Your task to perform on an android device: Turn on the flashlight Image 0: 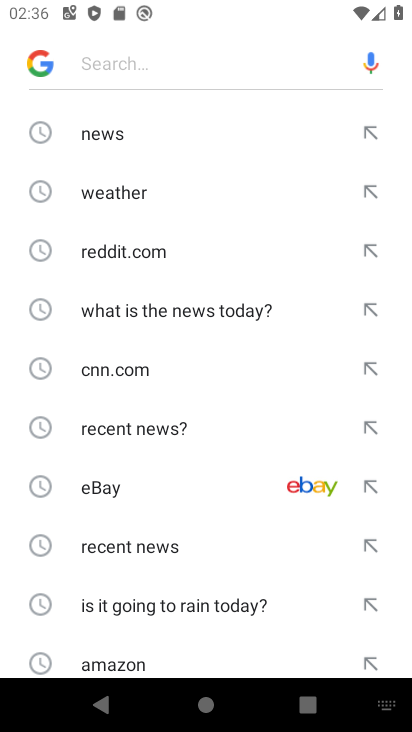
Step 0: drag from (173, 526) to (234, 186)
Your task to perform on an android device: Turn on the flashlight Image 1: 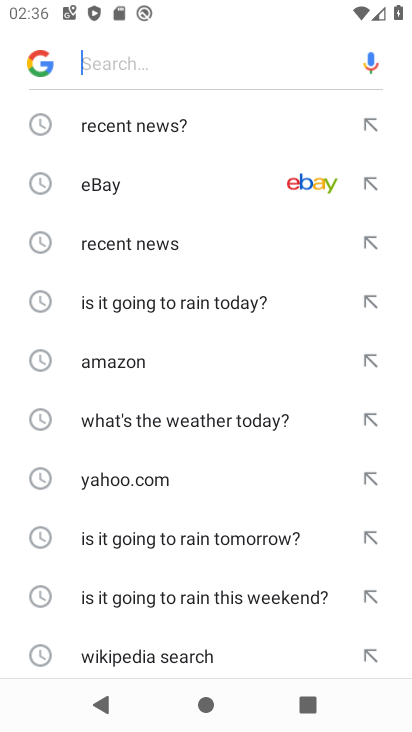
Step 1: press home button
Your task to perform on an android device: Turn on the flashlight Image 2: 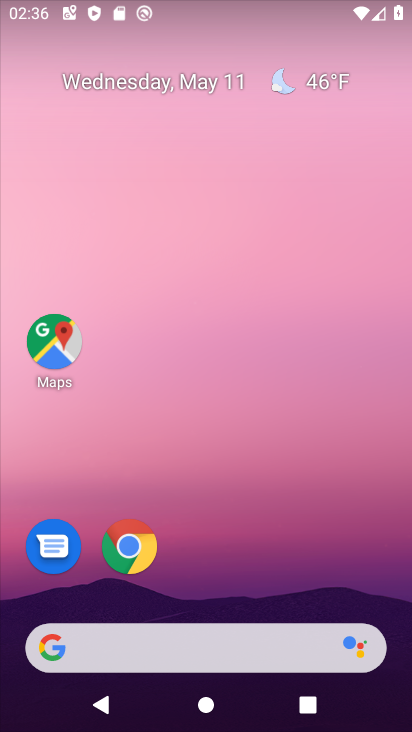
Step 2: drag from (199, 608) to (205, 318)
Your task to perform on an android device: Turn on the flashlight Image 3: 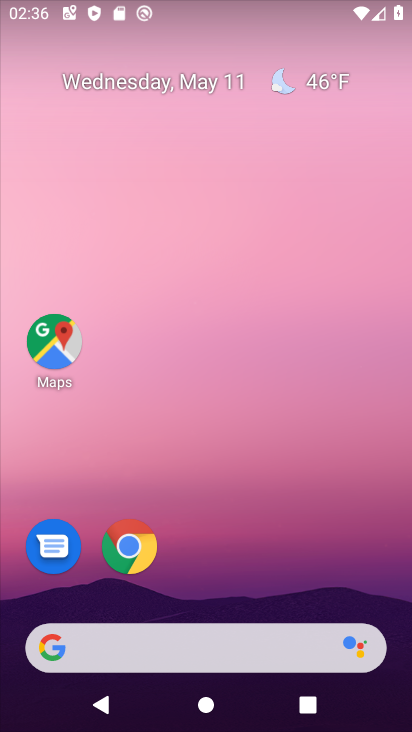
Step 3: drag from (207, 559) to (228, 317)
Your task to perform on an android device: Turn on the flashlight Image 4: 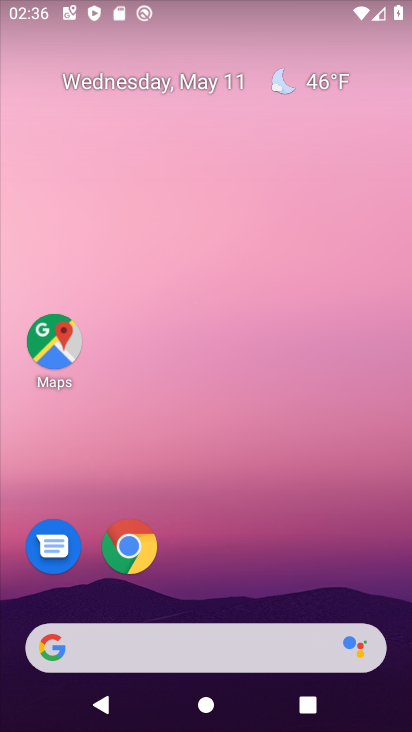
Step 4: drag from (167, 594) to (192, 74)
Your task to perform on an android device: Turn on the flashlight Image 5: 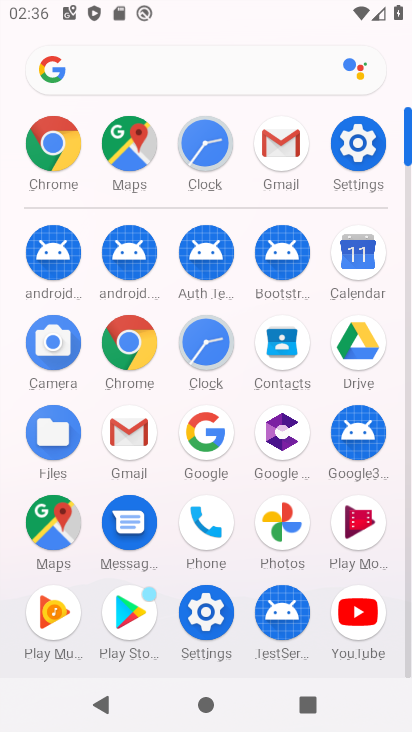
Step 5: click (369, 134)
Your task to perform on an android device: Turn on the flashlight Image 6: 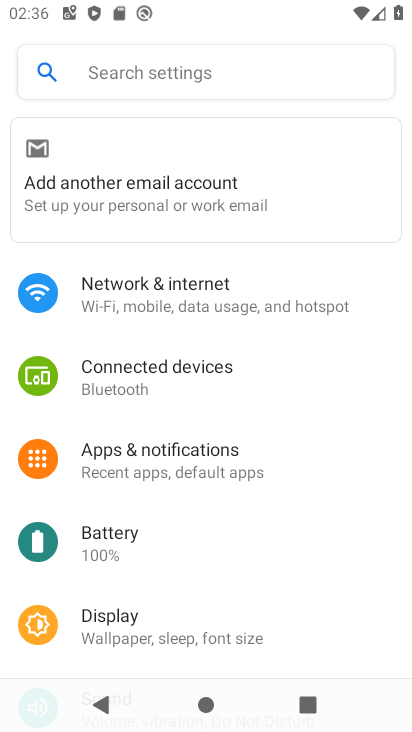
Step 6: click (215, 79)
Your task to perform on an android device: Turn on the flashlight Image 7: 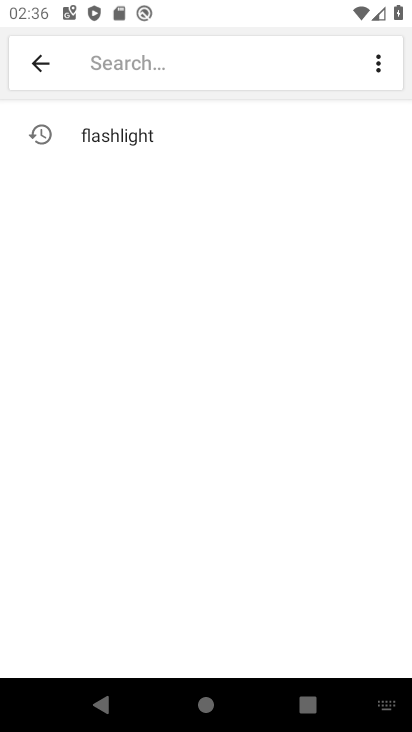
Step 7: click (122, 154)
Your task to perform on an android device: Turn on the flashlight Image 8: 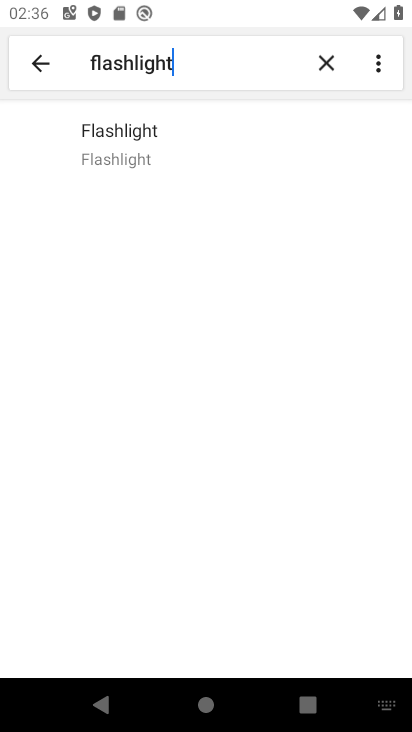
Step 8: task complete